Your task to perform on an android device: manage bookmarks in the chrome app Image 0: 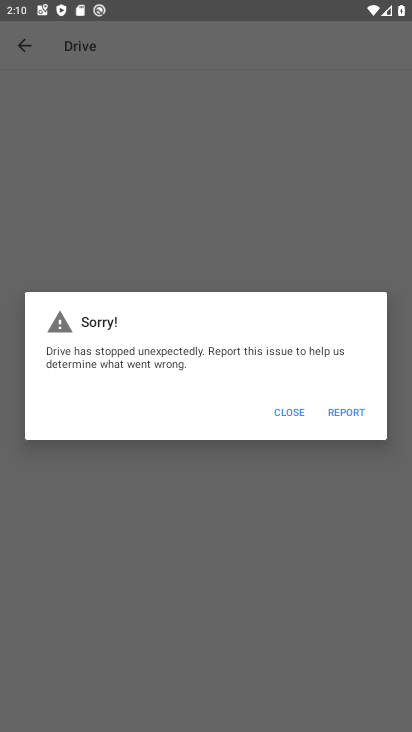
Step 0: press home button
Your task to perform on an android device: manage bookmarks in the chrome app Image 1: 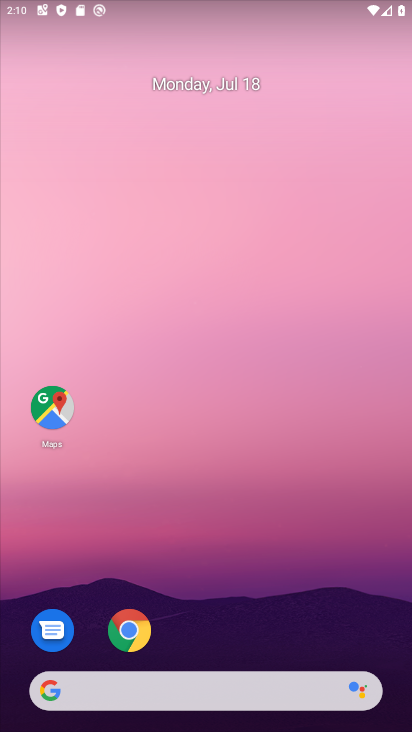
Step 1: click (129, 632)
Your task to perform on an android device: manage bookmarks in the chrome app Image 2: 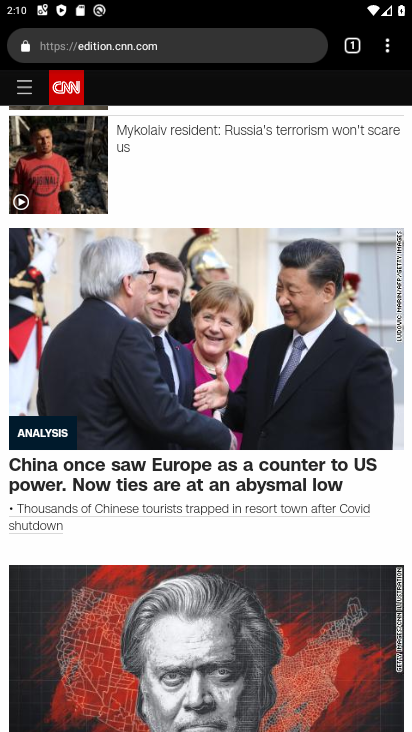
Step 2: click (389, 55)
Your task to perform on an android device: manage bookmarks in the chrome app Image 3: 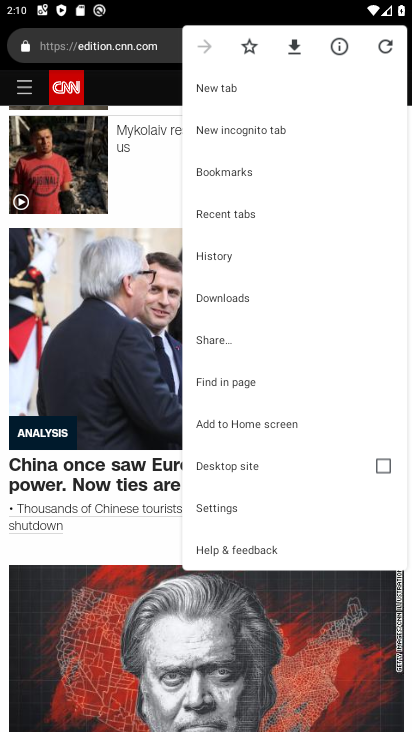
Step 3: click (214, 174)
Your task to perform on an android device: manage bookmarks in the chrome app Image 4: 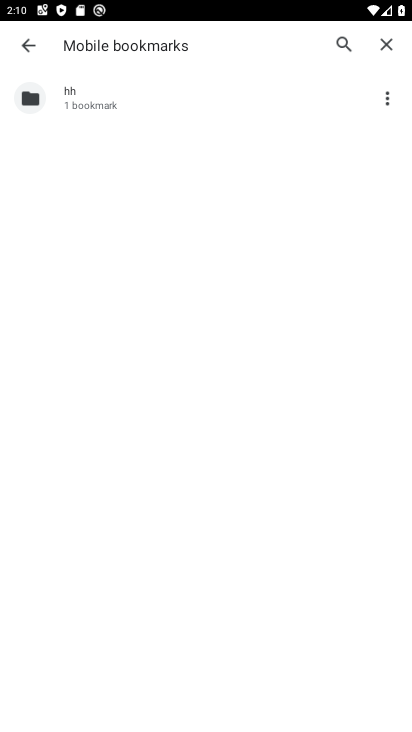
Step 4: click (84, 99)
Your task to perform on an android device: manage bookmarks in the chrome app Image 5: 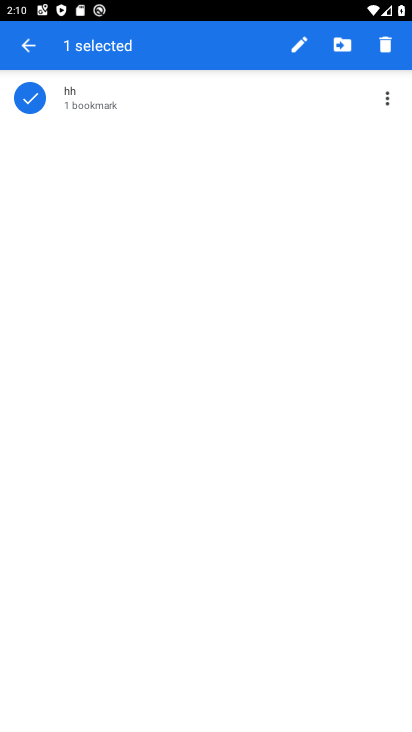
Step 5: click (335, 43)
Your task to perform on an android device: manage bookmarks in the chrome app Image 6: 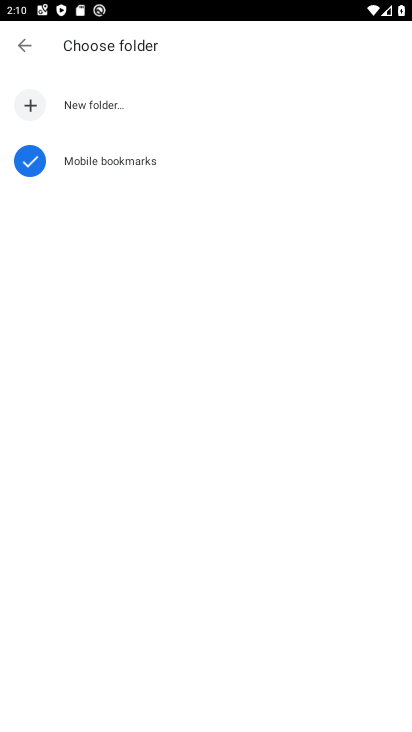
Step 6: click (30, 104)
Your task to perform on an android device: manage bookmarks in the chrome app Image 7: 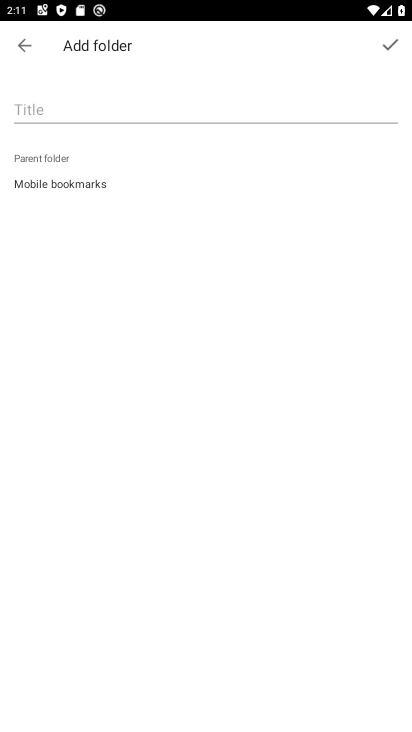
Step 7: type "tfv"
Your task to perform on an android device: manage bookmarks in the chrome app Image 8: 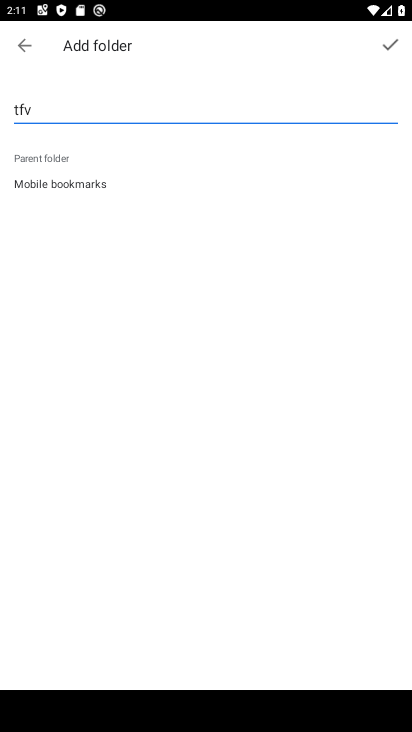
Step 8: click (387, 44)
Your task to perform on an android device: manage bookmarks in the chrome app Image 9: 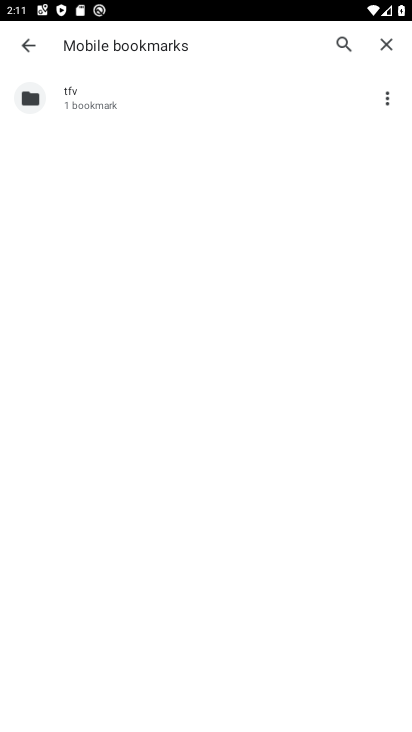
Step 9: task complete